Your task to perform on an android device: Search for seafood restaurants on Google Maps Image 0: 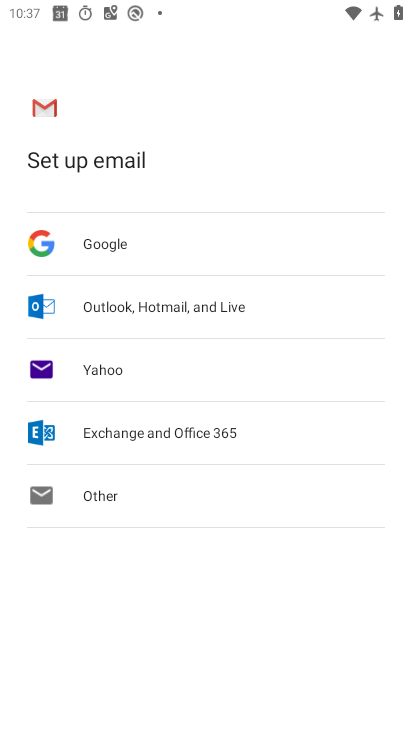
Step 0: press back button
Your task to perform on an android device: Search for seafood restaurants on Google Maps Image 1: 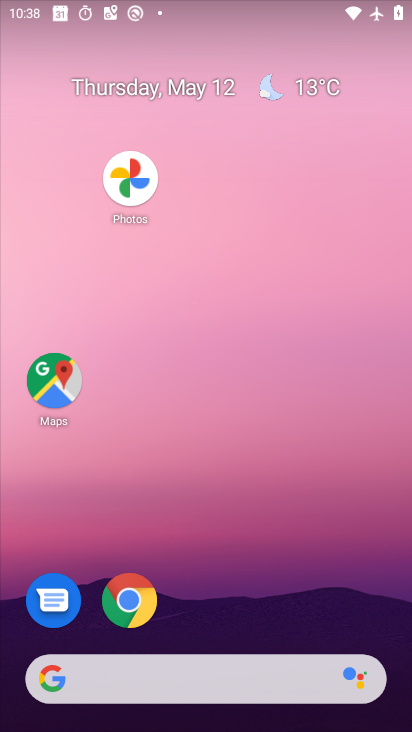
Step 1: drag from (288, 464) to (111, 2)
Your task to perform on an android device: Search for seafood restaurants on Google Maps Image 2: 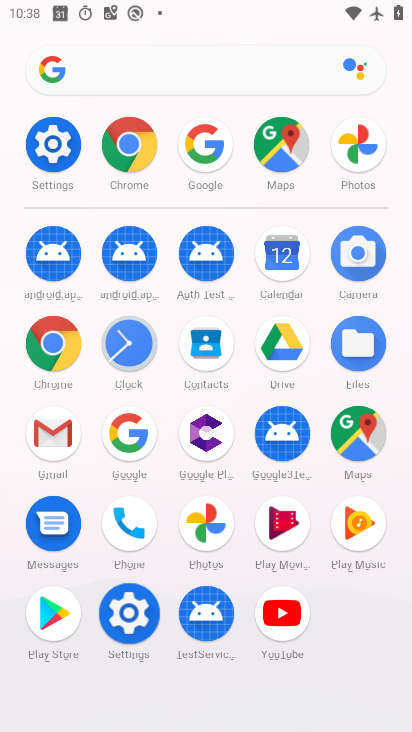
Step 2: drag from (262, 556) to (121, 148)
Your task to perform on an android device: Search for seafood restaurants on Google Maps Image 3: 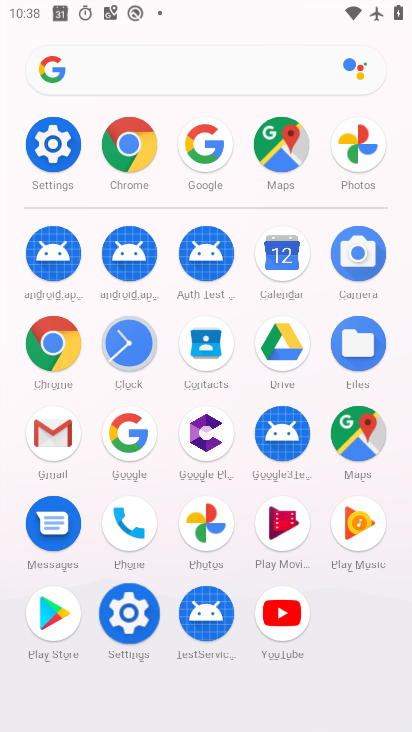
Step 3: drag from (312, 537) to (111, 52)
Your task to perform on an android device: Search for seafood restaurants on Google Maps Image 4: 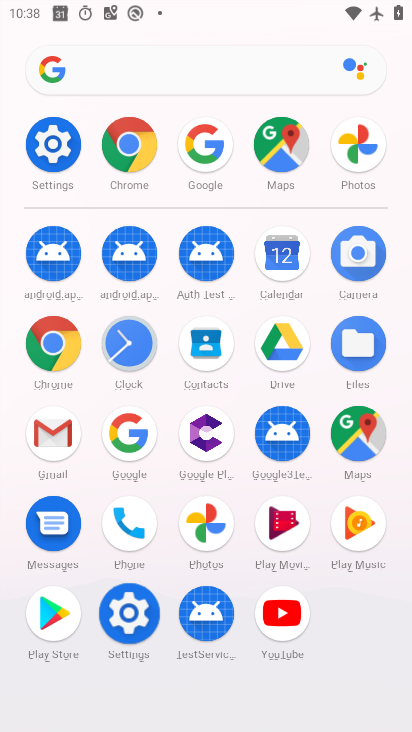
Step 4: click (357, 442)
Your task to perform on an android device: Search for seafood restaurants on Google Maps Image 5: 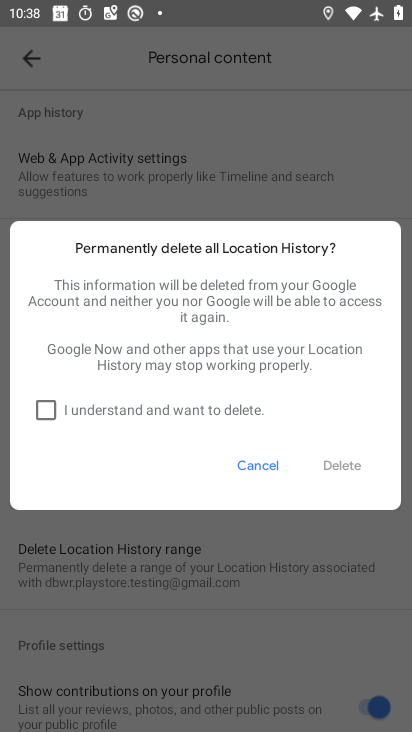
Step 5: click (263, 462)
Your task to perform on an android device: Search for seafood restaurants on Google Maps Image 6: 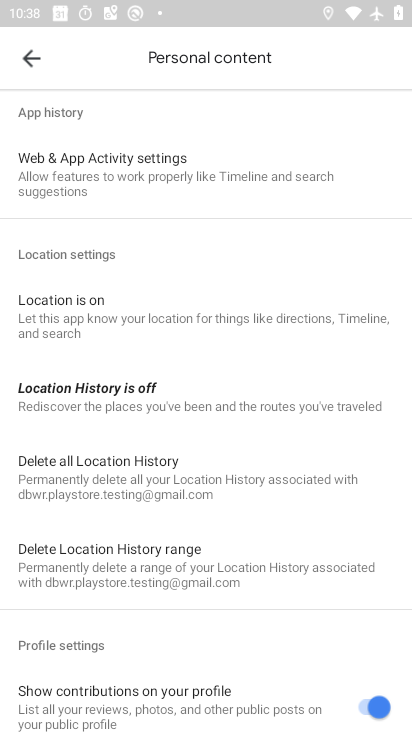
Step 6: click (261, 452)
Your task to perform on an android device: Search for seafood restaurants on Google Maps Image 7: 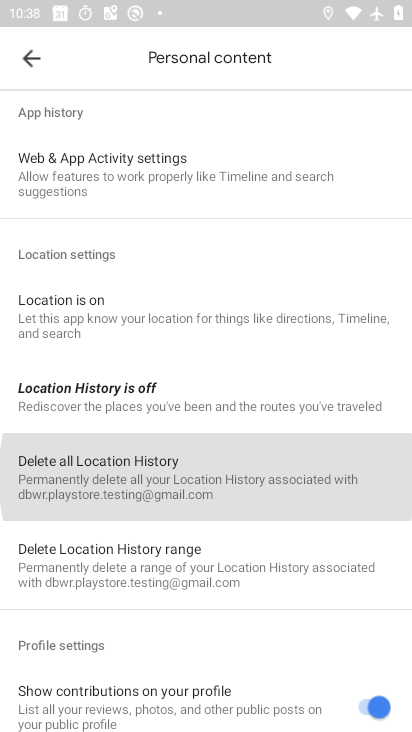
Step 7: click (264, 461)
Your task to perform on an android device: Search for seafood restaurants on Google Maps Image 8: 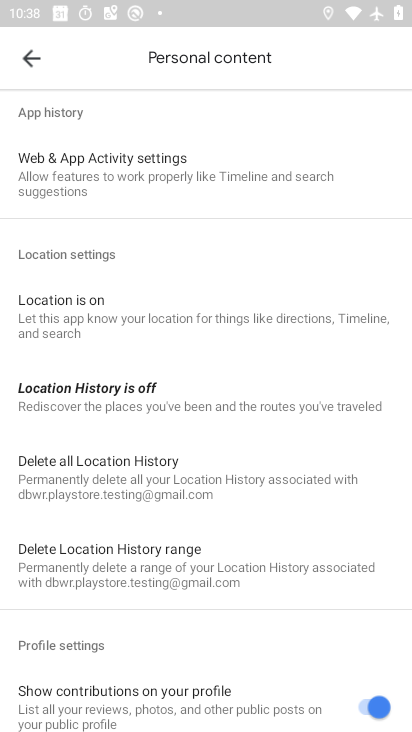
Step 8: click (38, 57)
Your task to perform on an android device: Search for seafood restaurants on Google Maps Image 9: 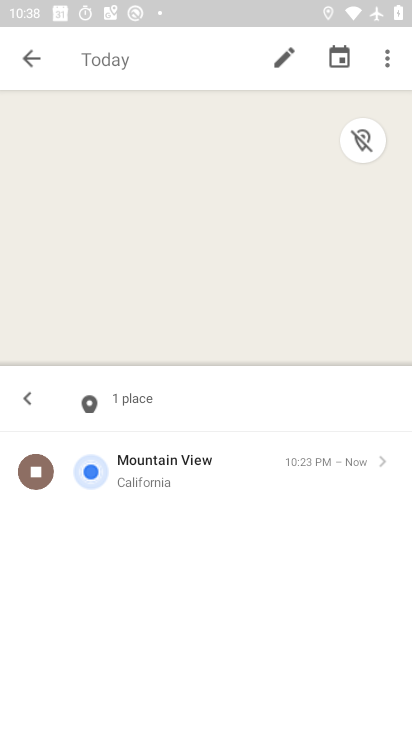
Step 9: click (22, 44)
Your task to perform on an android device: Search for seafood restaurants on Google Maps Image 10: 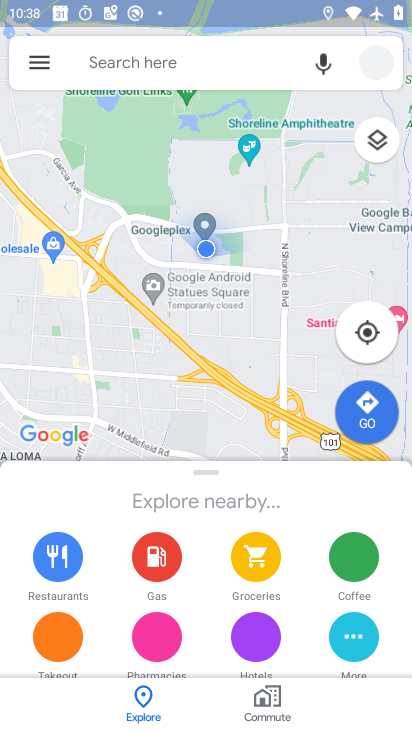
Step 10: click (106, 68)
Your task to perform on an android device: Search for seafood restaurants on Google Maps Image 11: 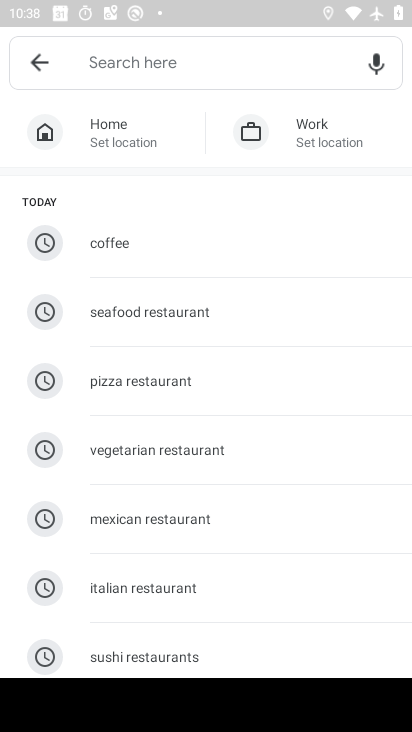
Step 11: type "seafood restaurants"
Your task to perform on an android device: Search for seafood restaurants on Google Maps Image 12: 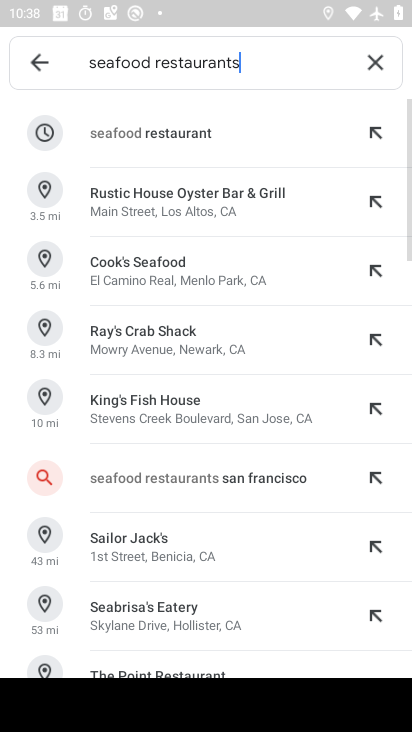
Step 12: click (180, 139)
Your task to perform on an android device: Search for seafood restaurants on Google Maps Image 13: 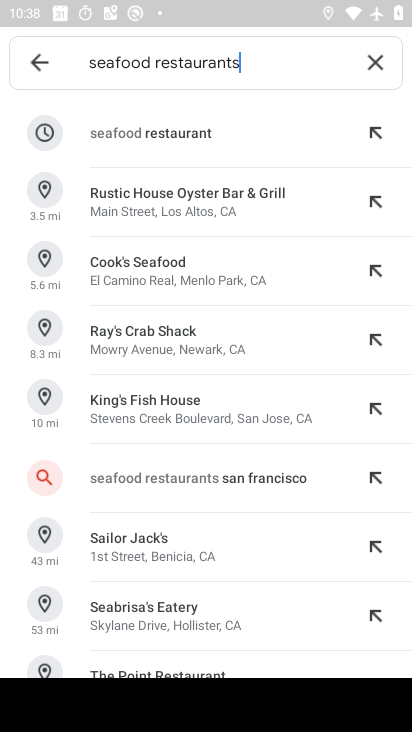
Step 13: click (180, 139)
Your task to perform on an android device: Search for seafood restaurants on Google Maps Image 14: 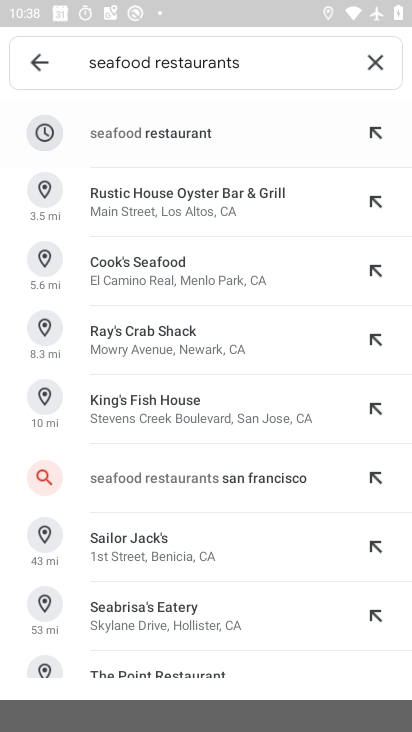
Step 14: click (180, 139)
Your task to perform on an android device: Search for seafood restaurants on Google Maps Image 15: 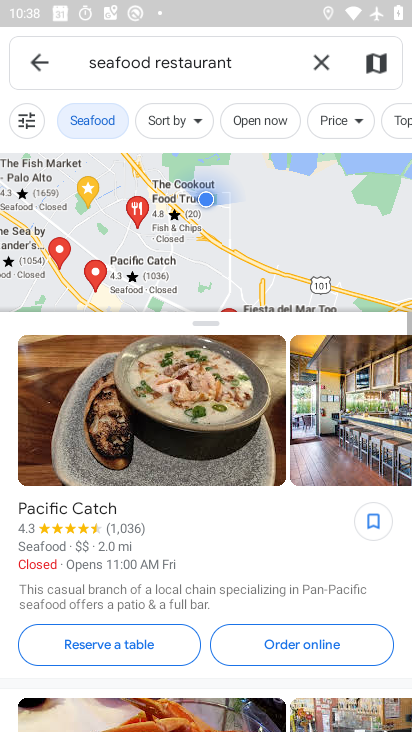
Step 15: task complete